Your task to perform on an android device: open wifi settings Image 0: 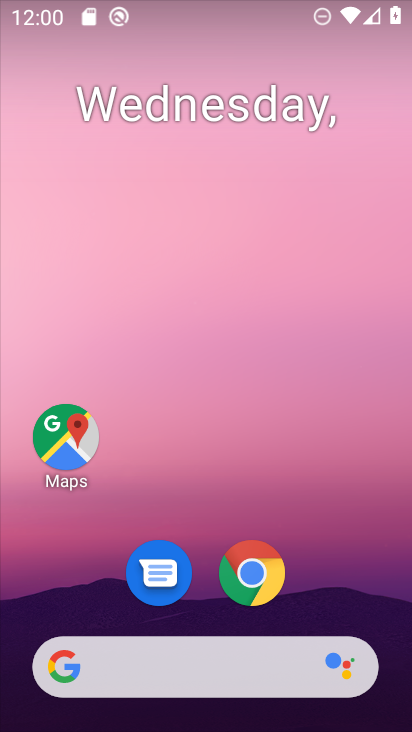
Step 0: drag from (251, 0) to (239, 39)
Your task to perform on an android device: open wifi settings Image 1: 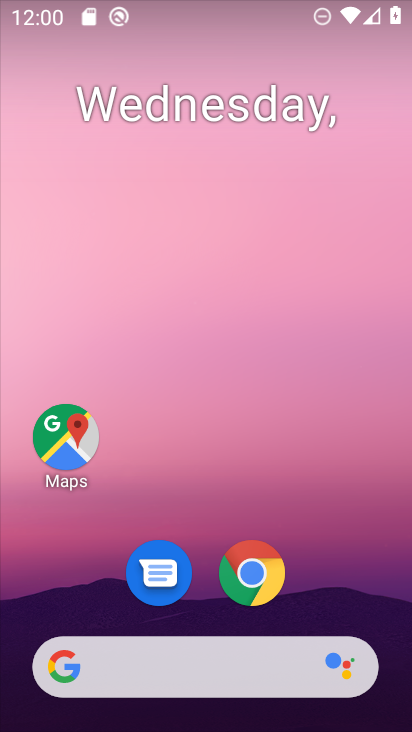
Step 1: drag from (318, 555) to (268, 154)
Your task to perform on an android device: open wifi settings Image 2: 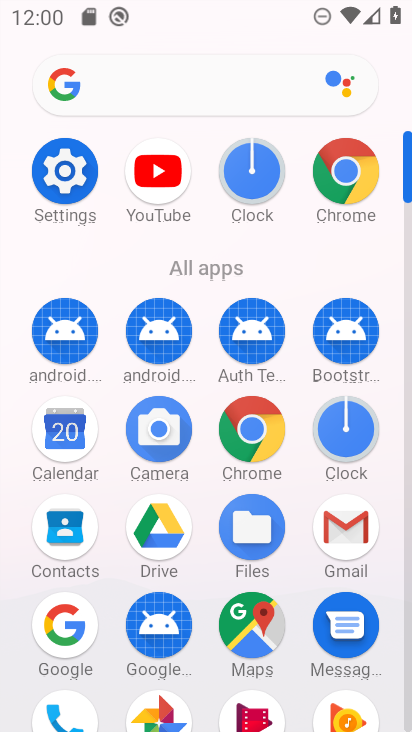
Step 2: click (79, 170)
Your task to perform on an android device: open wifi settings Image 3: 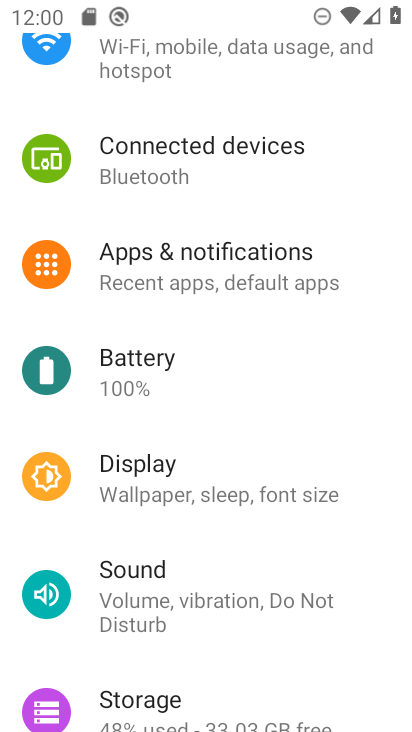
Step 3: click (290, 65)
Your task to perform on an android device: open wifi settings Image 4: 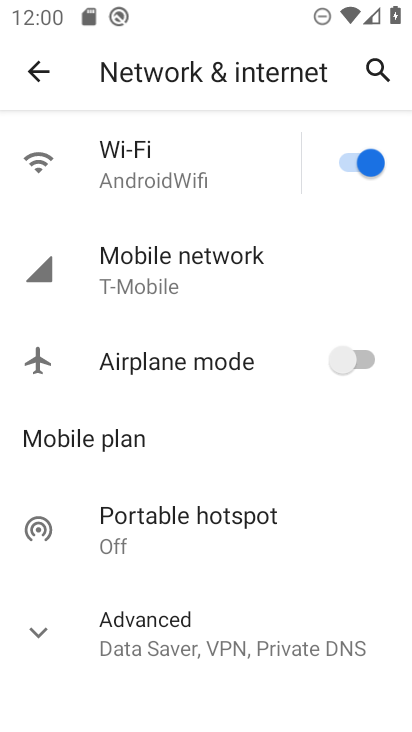
Step 4: click (163, 159)
Your task to perform on an android device: open wifi settings Image 5: 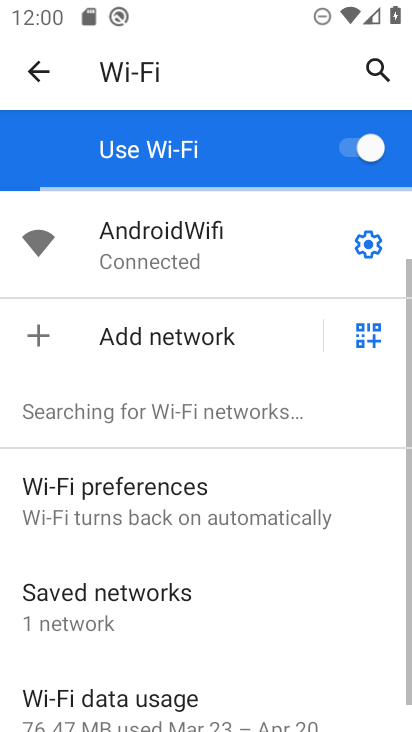
Step 5: task complete